Your task to perform on an android device: Play the last video I watched on Youtube Image 0: 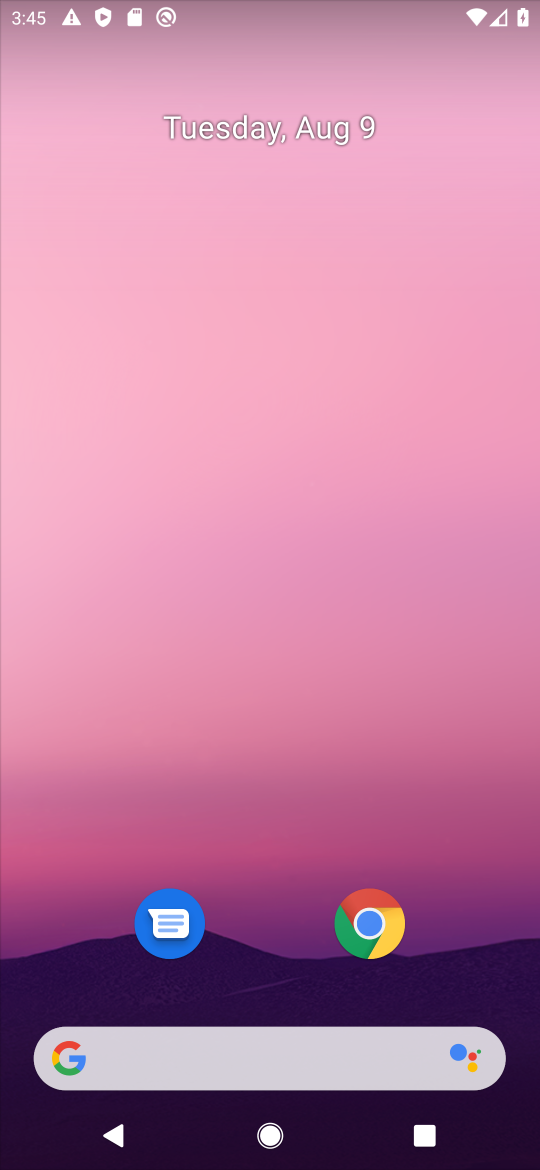
Step 0: drag from (289, 831) to (308, 71)
Your task to perform on an android device: Play the last video I watched on Youtube Image 1: 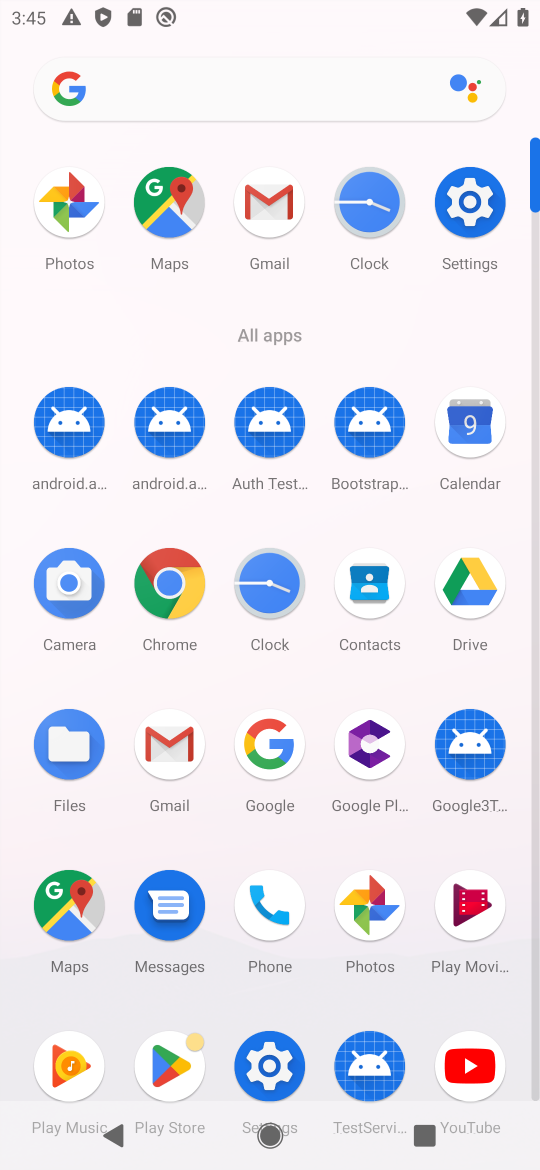
Step 1: click (456, 1063)
Your task to perform on an android device: Play the last video I watched on Youtube Image 2: 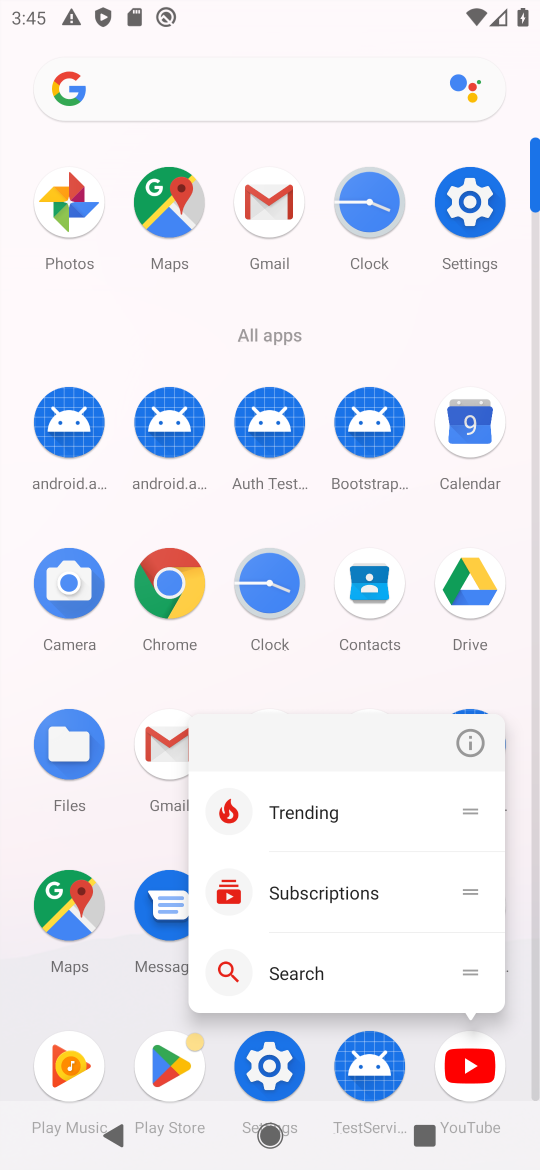
Step 2: click (472, 1063)
Your task to perform on an android device: Play the last video I watched on Youtube Image 3: 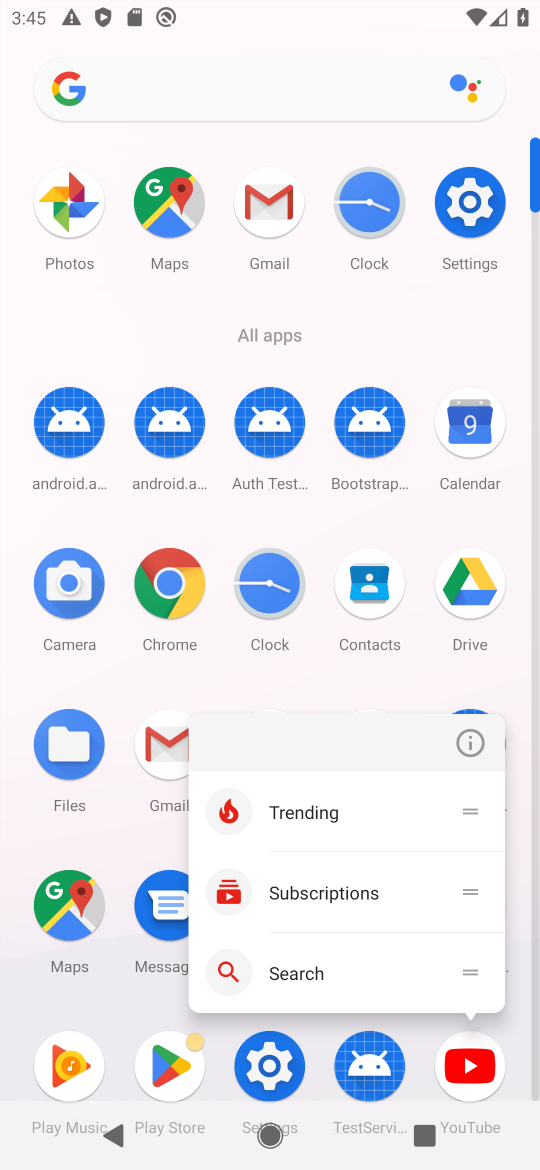
Step 3: click (471, 1065)
Your task to perform on an android device: Play the last video I watched on Youtube Image 4: 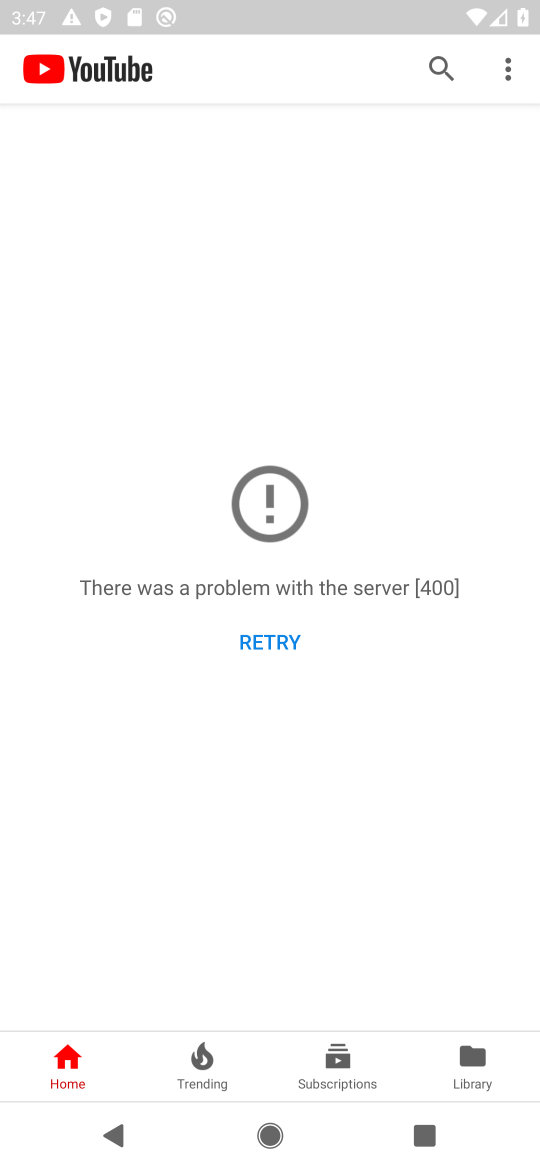
Step 4: press back button
Your task to perform on an android device: Play the last video I watched on Youtube Image 5: 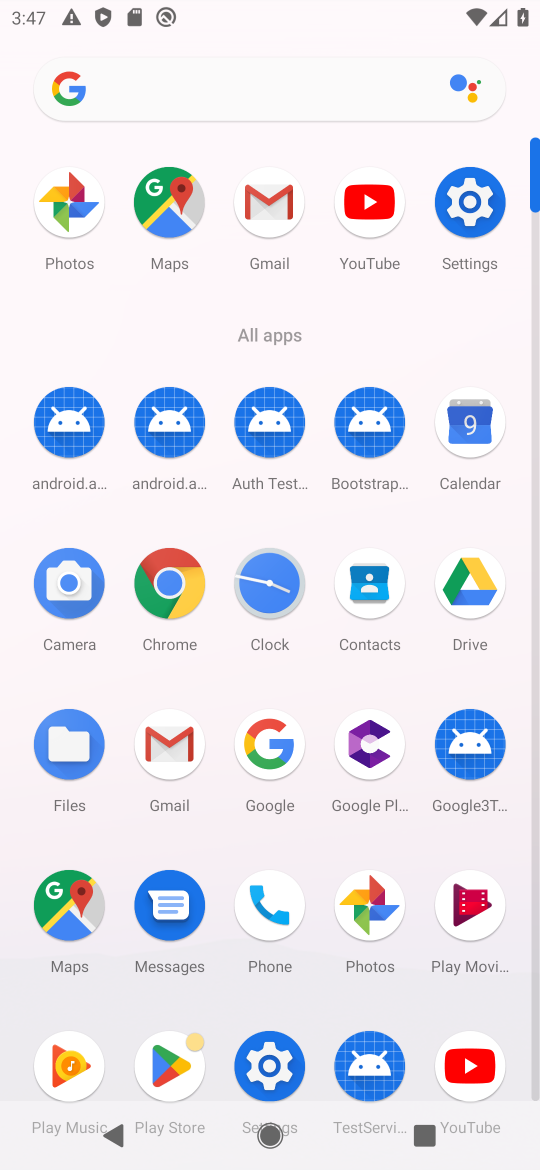
Step 5: click (469, 1063)
Your task to perform on an android device: Play the last video I watched on Youtube Image 6: 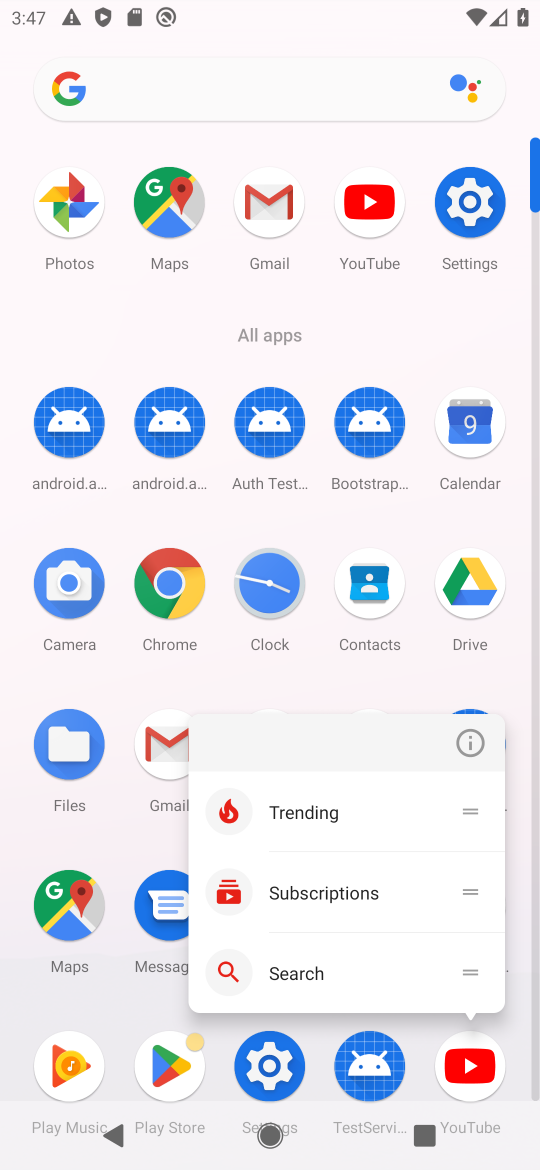
Step 6: click (464, 1068)
Your task to perform on an android device: Play the last video I watched on Youtube Image 7: 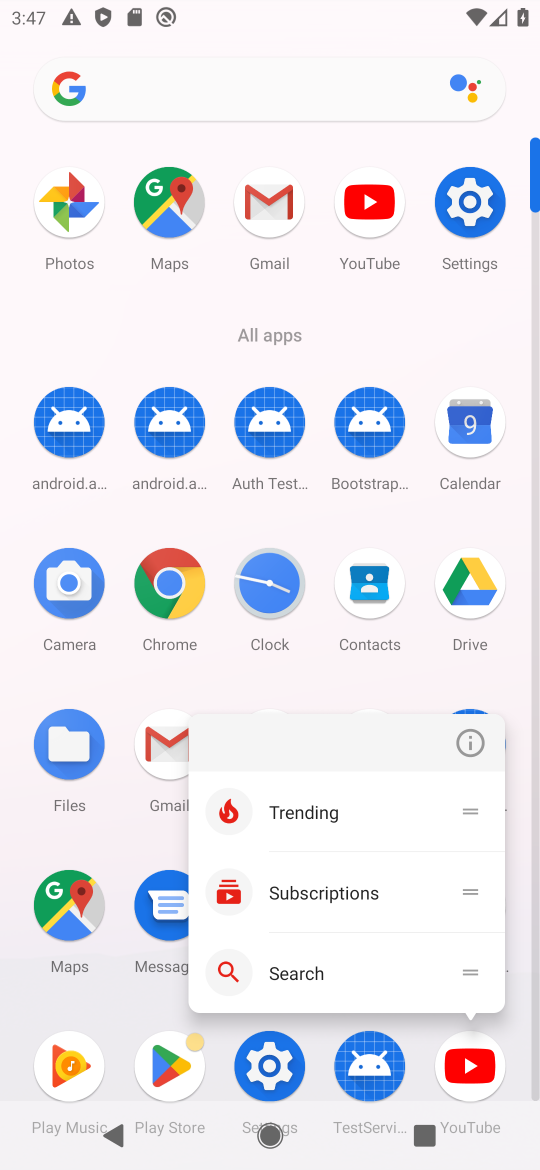
Step 7: click (464, 1068)
Your task to perform on an android device: Play the last video I watched on Youtube Image 8: 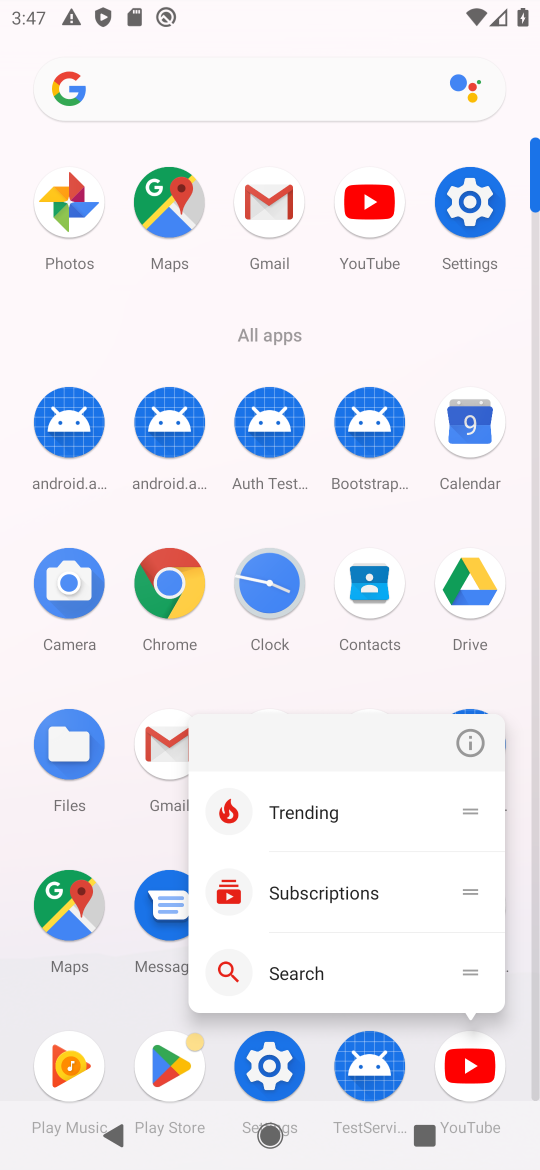
Step 8: click (464, 1068)
Your task to perform on an android device: Play the last video I watched on Youtube Image 9: 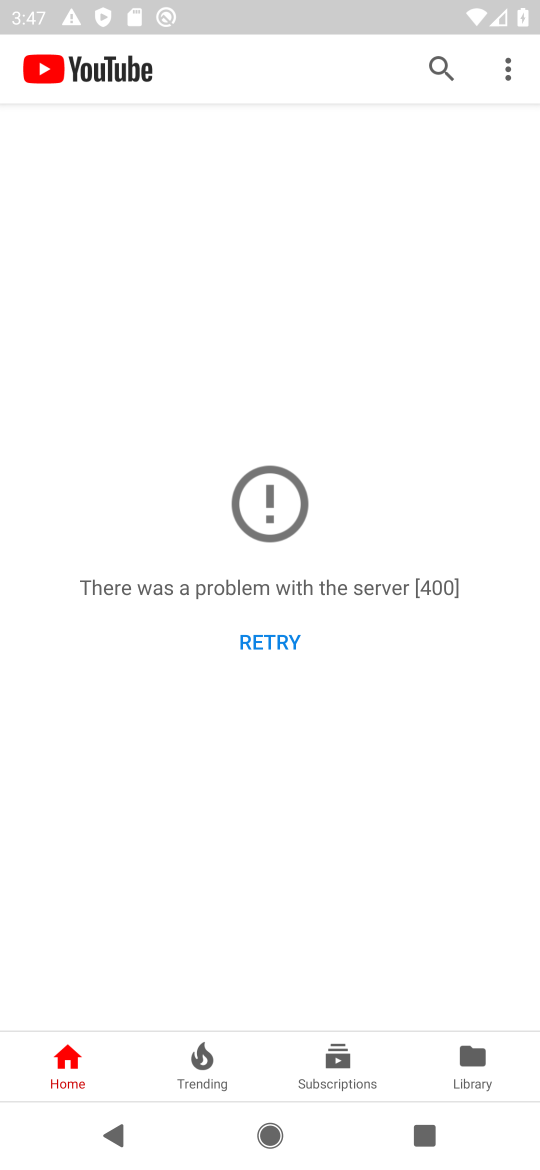
Step 9: click (467, 1065)
Your task to perform on an android device: Play the last video I watched on Youtube Image 10: 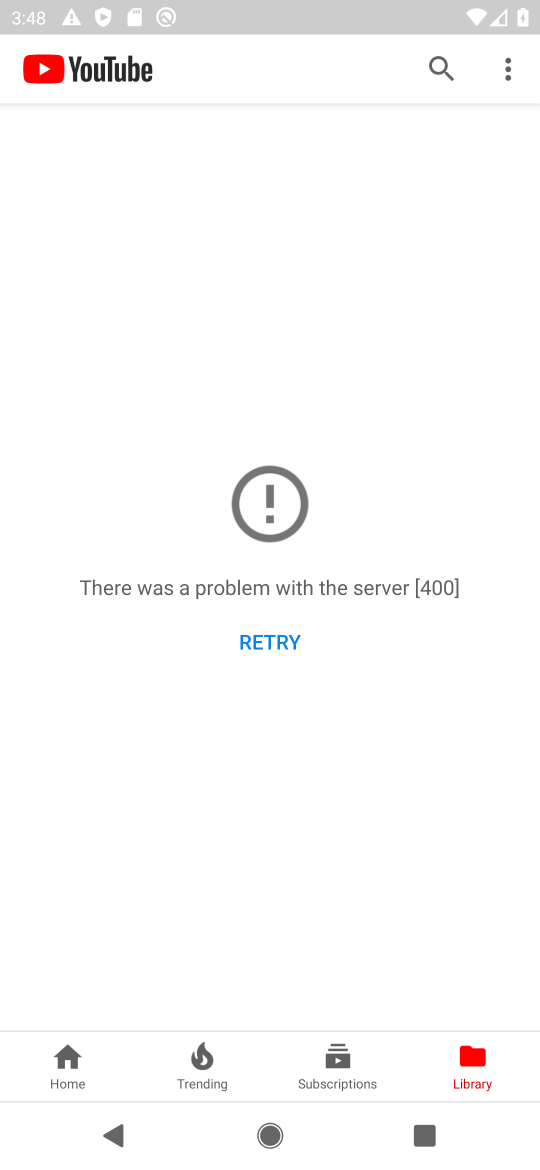
Step 10: task complete